Your task to perform on an android device: What's the weather? Image 0: 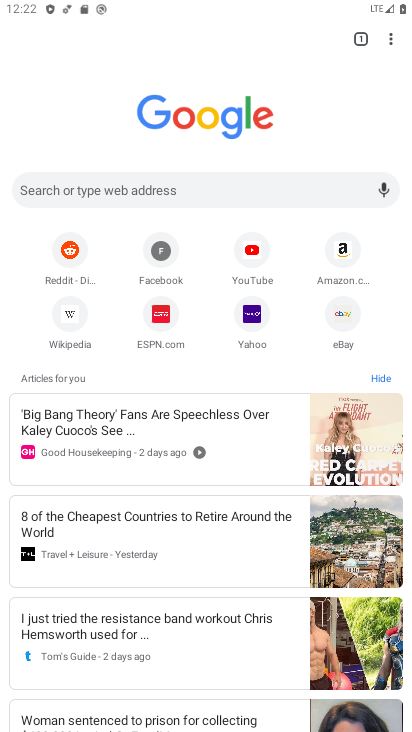
Step 0: click (261, 188)
Your task to perform on an android device: What's the weather? Image 1: 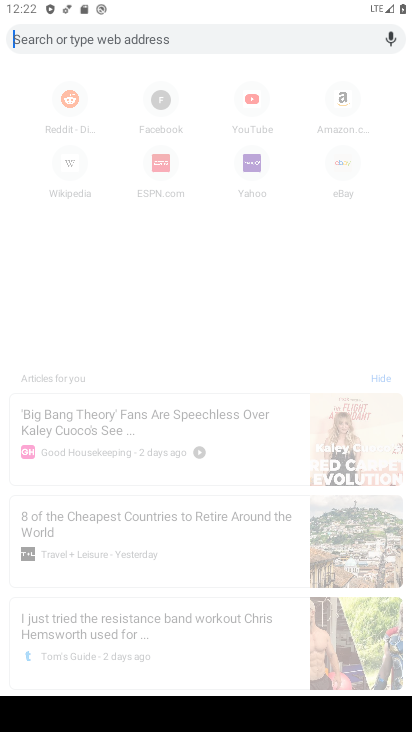
Step 1: press enter
Your task to perform on an android device: What's the weather? Image 2: 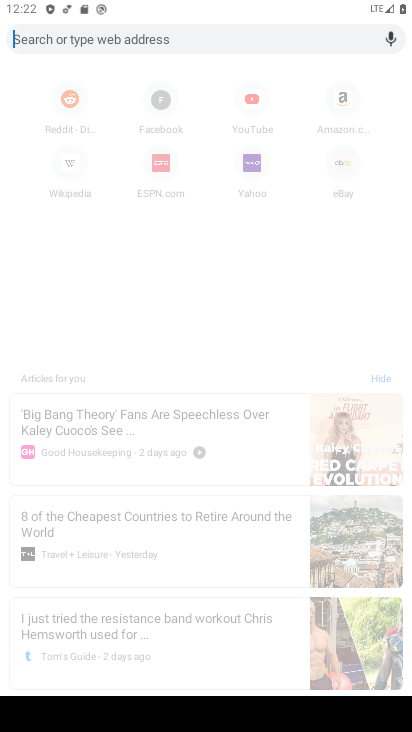
Step 2: type "What's the weather?"
Your task to perform on an android device: What's the weather? Image 3: 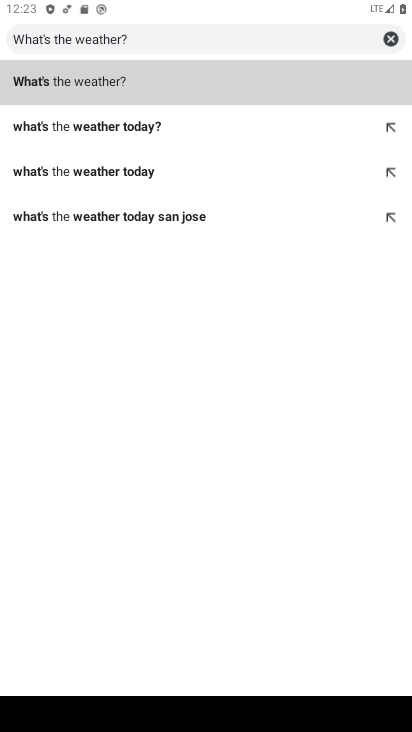
Step 3: press enter
Your task to perform on an android device: What's the weather? Image 4: 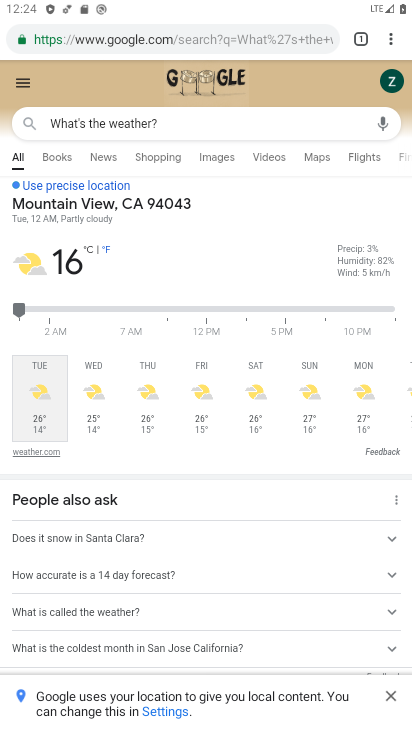
Step 4: task complete